Your task to perform on an android device: Open Wikipedia Image 0: 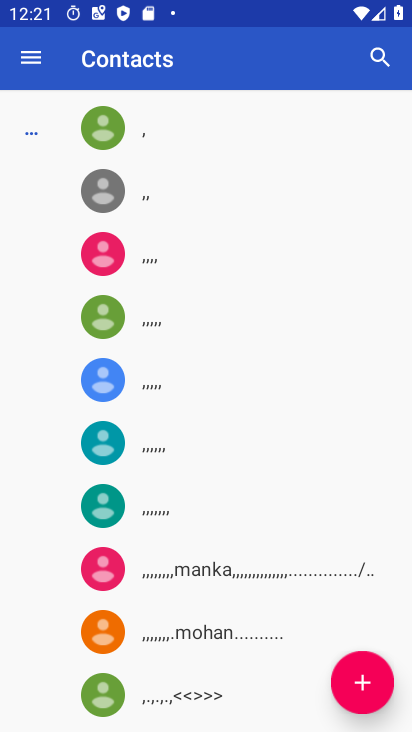
Step 0: press home button
Your task to perform on an android device: Open Wikipedia Image 1: 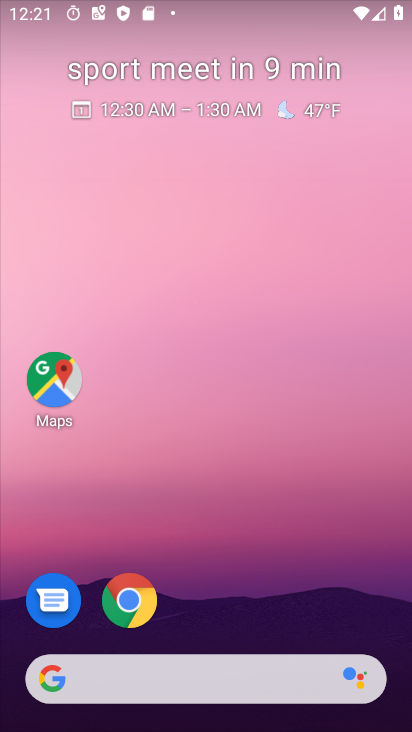
Step 1: drag from (189, 519) to (184, 589)
Your task to perform on an android device: Open Wikipedia Image 2: 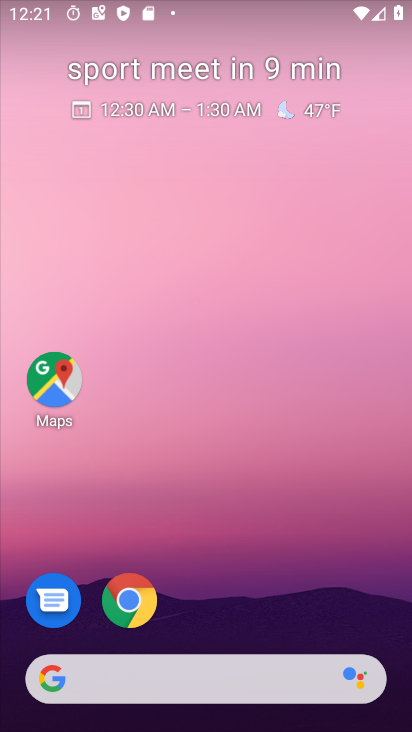
Step 2: click (128, 604)
Your task to perform on an android device: Open Wikipedia Image 3: 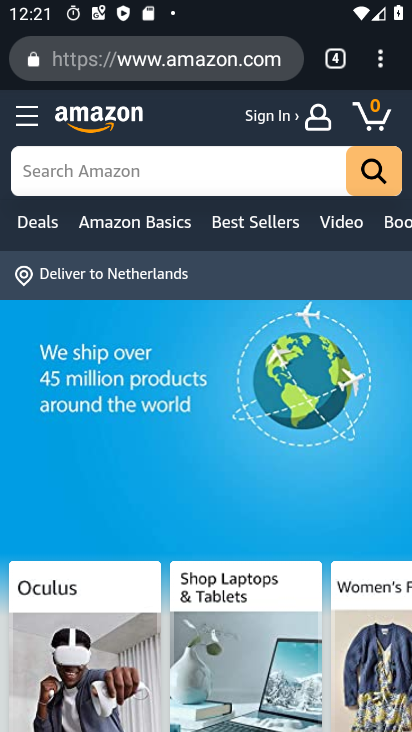
Step 3: drag from (189, 29) to (190, 88)
Your task to perform on an android device: Open Wikipedia Image 4: 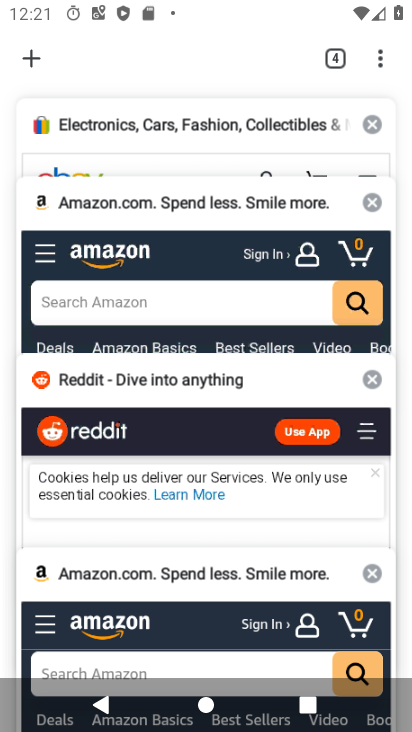
Step 4: click (27, 59)
Your task to perform on an android device: Open Wikipedia Image 5: 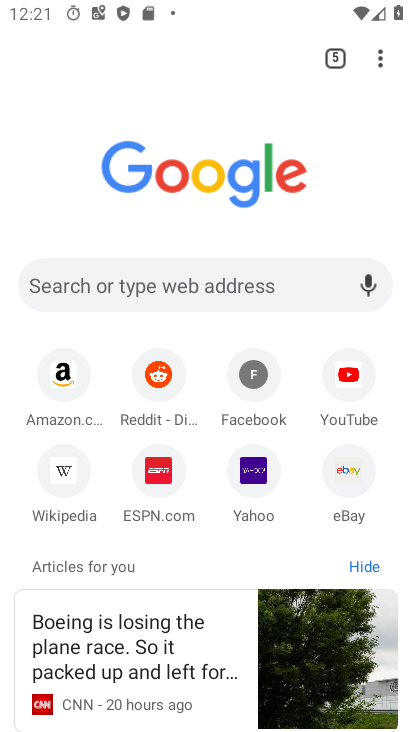
Step 5: click (77, 473)
Your task to perform on an android device: Open Wikipedia Image 6: 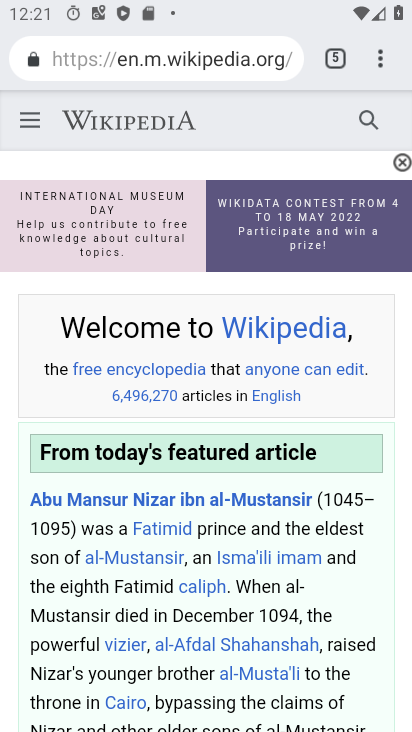
Step 6: task complete